Your task to perform on an android device: visit the assistant section in the google photos Image 0: 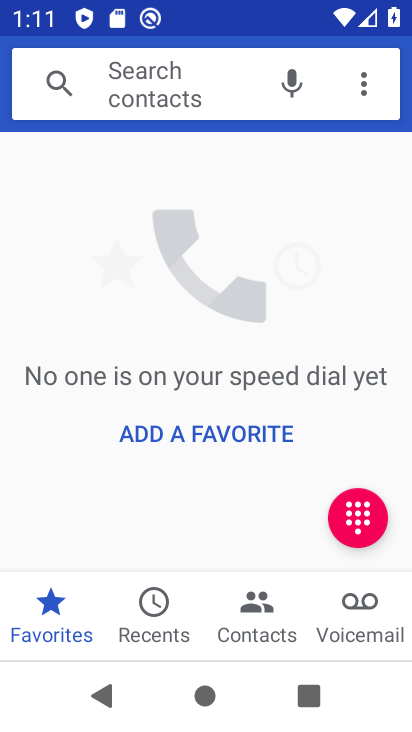
Step 0: press home button
Your task to perform on an android device: visit the assistant section in the google photos Image 1: 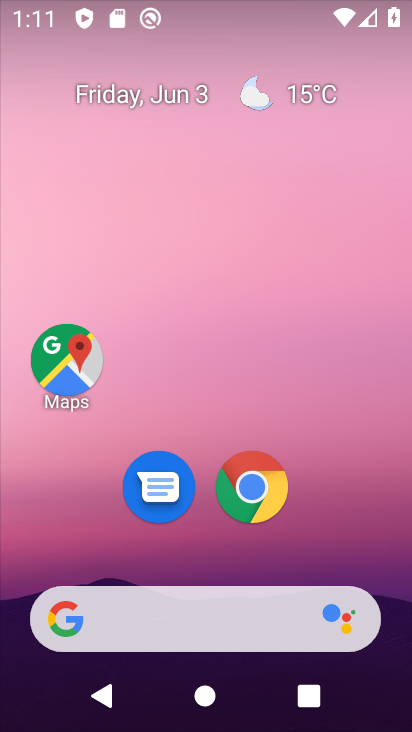
Step 1: drag from (208, 559) to (207, 56)
Your task to perform on an android device: visit the assistant section in the google photos Image 2: 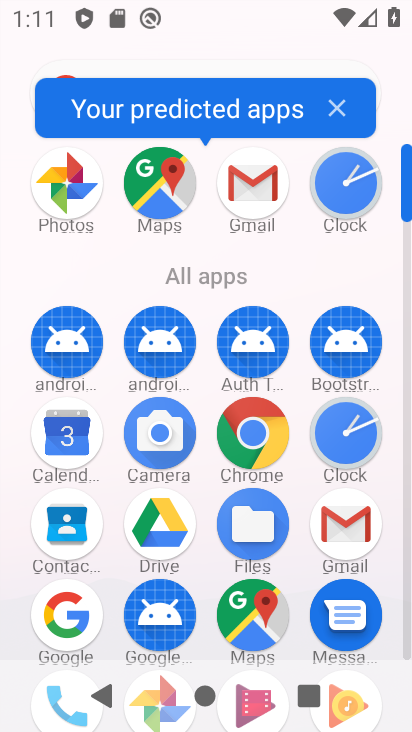
Step 2: drag from (201, 570) to (201, 193)
Your task to perform on an android device: visit the assistant section in the google photos Image 3: 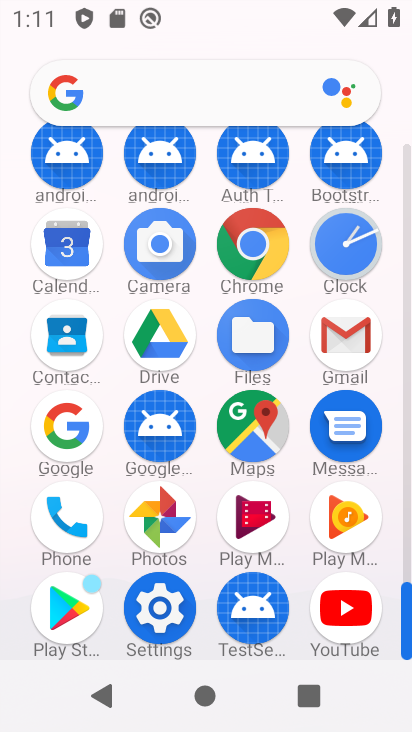
Step 3: click (157, 510)
Your task to perform on an android device: visit the assistant section in the google photos Image 4: 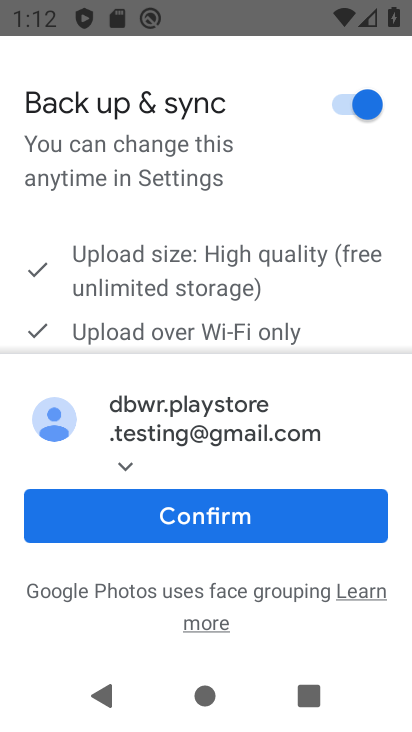
Step 4: click (202, 519)
Your task to perform on an android device: visit the assistant section in the google photos Image 5: 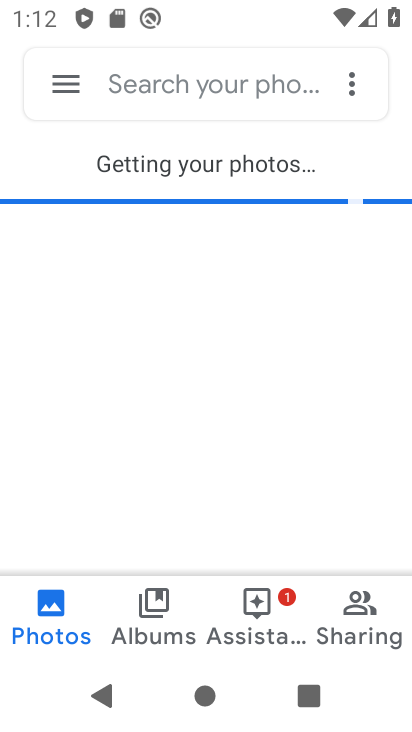
Step 5: click (254, 597)
Your task to perform on an android device: visit the assistant section in the google photos Image 6: 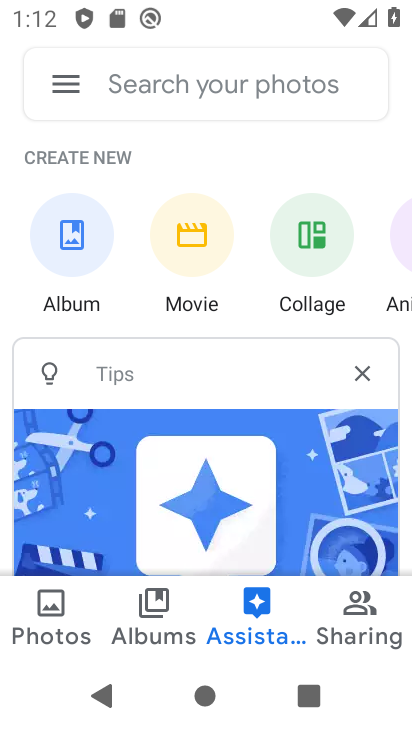
Step 6: task complete